Your task to perform on an android device: Set the phone to "Do not disturb". Image 0: 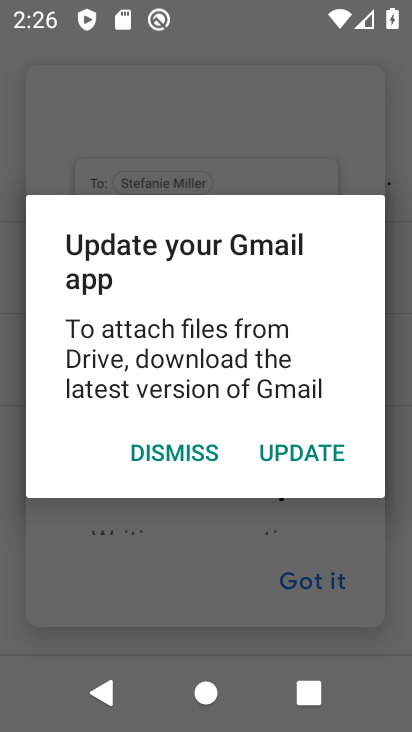
Step 0: press home button
Your task to perform on an android device: Set the phone to "Do not disturb". Image 1: 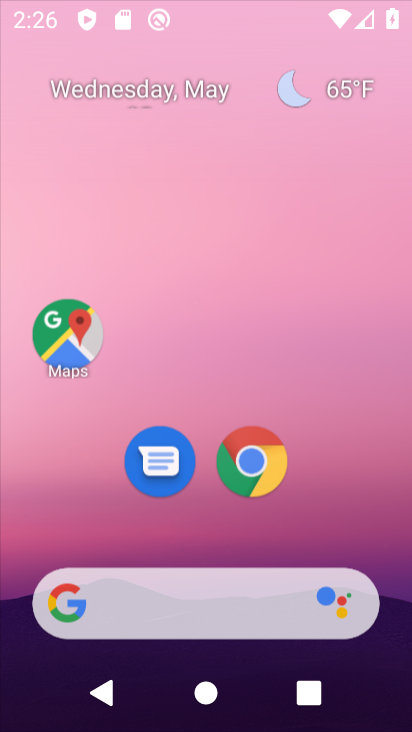
Step 1: drag from (202, 0) to (96, 656)
Your task to perform on an android device: Set the phone to "Do not disturb". Image 2: 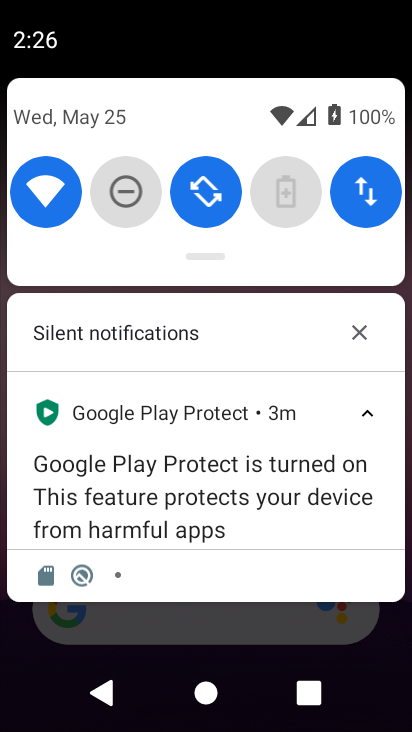
Step 2: click (122, 185)
Your task to perform on an android device: Set the phone to "Do not disturb". Image 3: 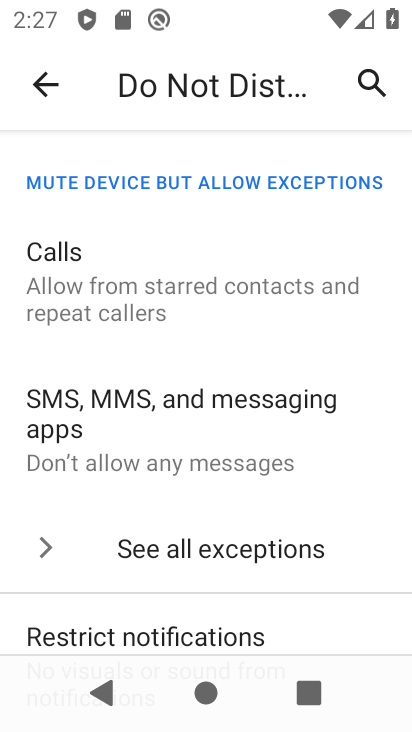
Step 3: drag from (264, 541) to (296, 195)
Your task to perform on an android device: Set the phone to "Do not disturb". Image 4: 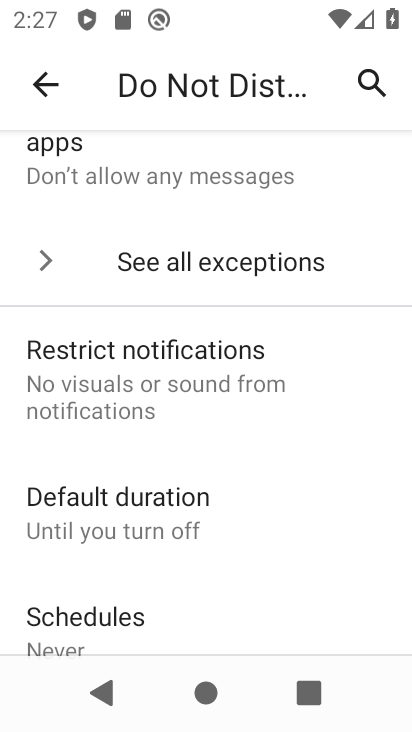
Step 4: drag from (163, 599) to (240, 172)
Your task to perform on an android device: Set the phone to "Do not disturb". Image 5: 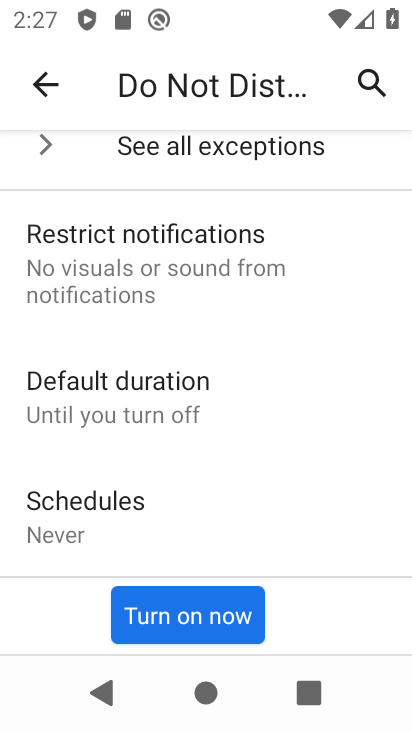
Step 5: click (198, 595)
Your task to perform on an android device: Set the phone to "Do not disturb". Image 6: 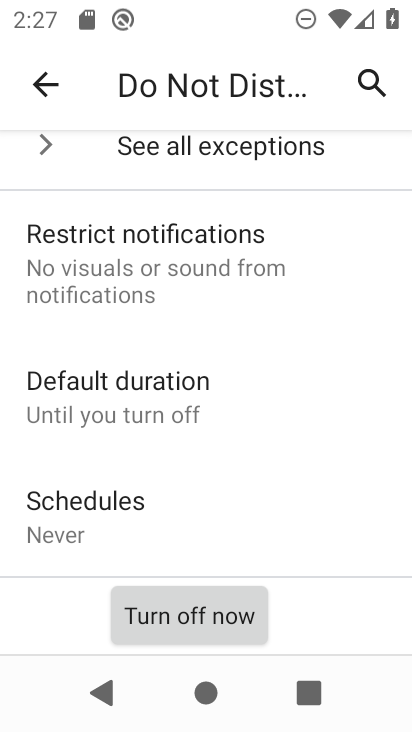
Step 6: task complete